Your task to perform on an android device: toggle airplane mode Image 0: 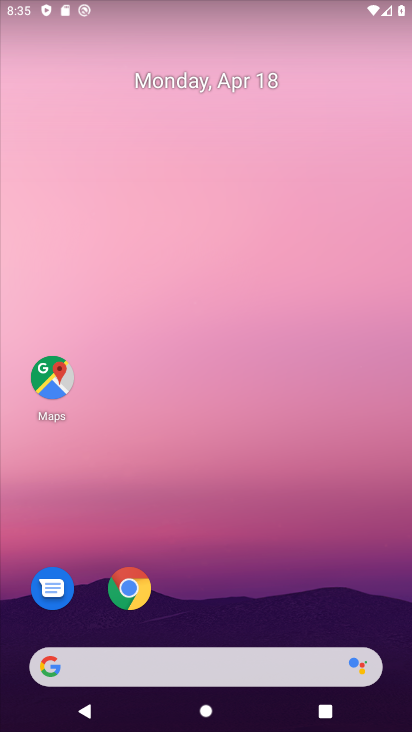
Step 0: drag from (207, 646) to (209, 212)
Your task to perform on an android device: toggle airplane mode Image 1: 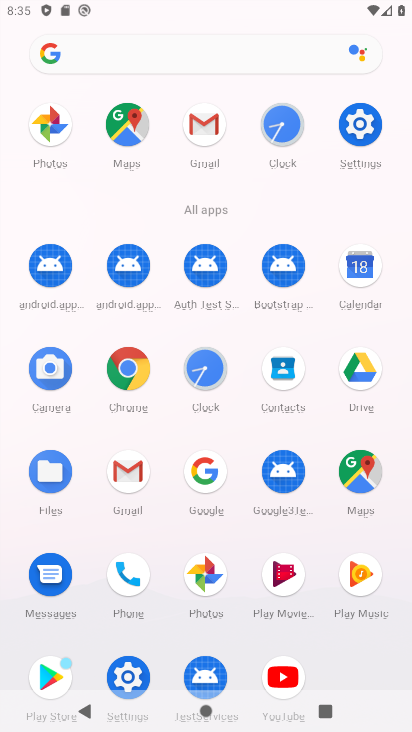
Step 1: click (363, 117)
Your task to perform on an android device: toggle airplane mode Image 2: 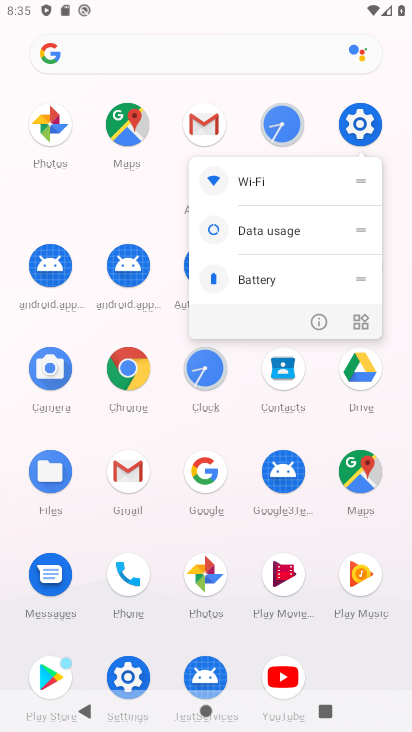
Step 2: click (363, 117)
Your task to perform on an android device: toggle airplane mode Image 3: 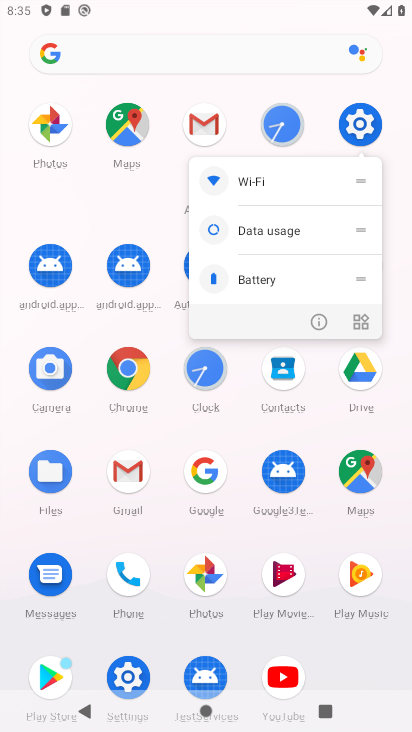
Step 3: click (363, 117)
Your task to perform on an android device: toggle airplane mode Image 4: 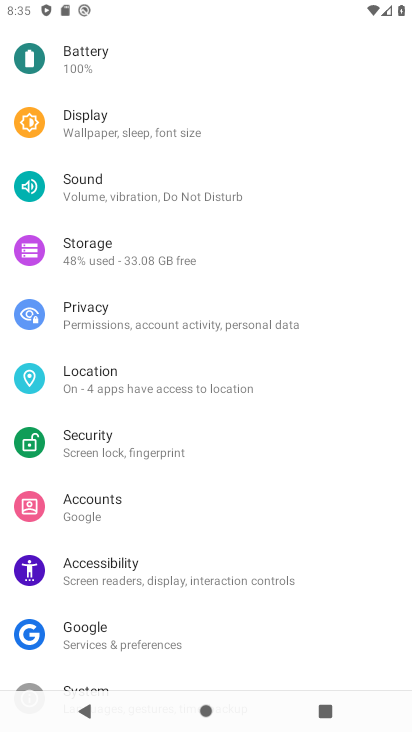
Step 4: drag from (214, 172) to (172, 653)
Your task to perform on an android device: toggle airplane mode Image 5: 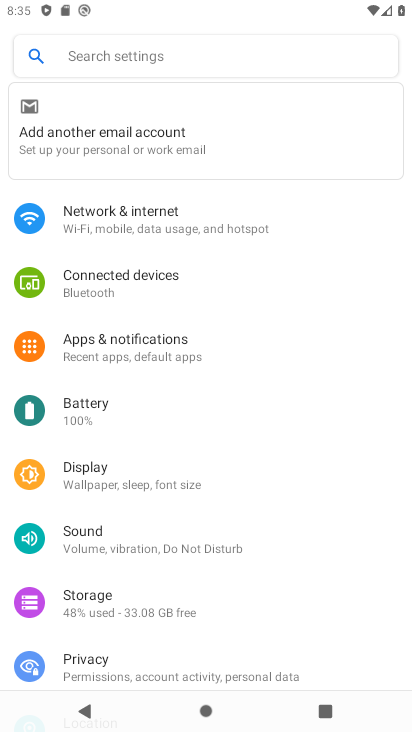
Step 5: click (155, 213)
Your task to perform on an android device: toggle airplane mode Image 6: 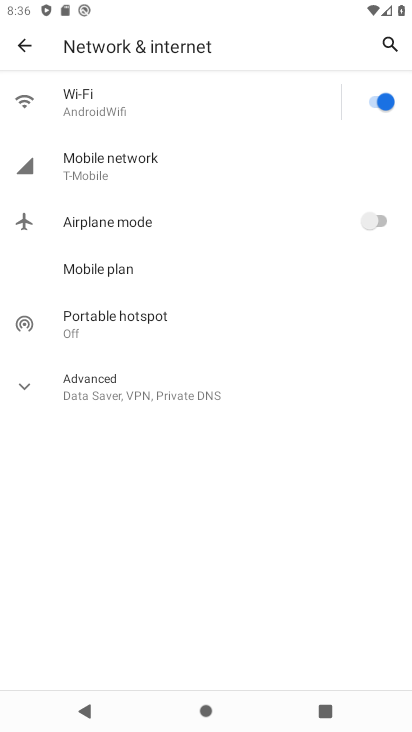
Step 6: click (377, 218)
Your task to perform on an android device: toggle airplane mode Image 7: 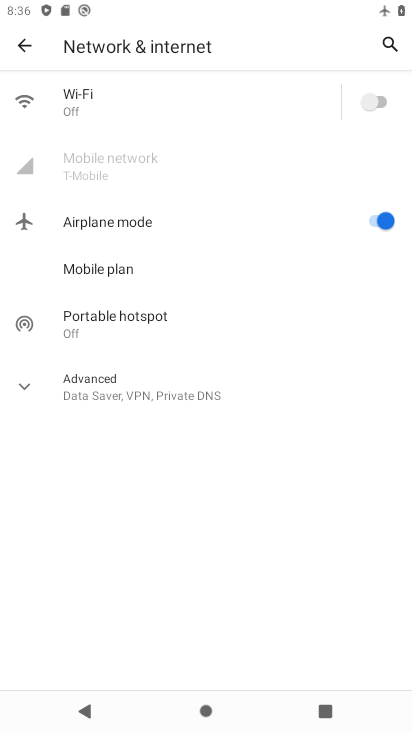
Step 7: task complete